Your task to perform on an android device: turn off notifications in google photos Image 0: 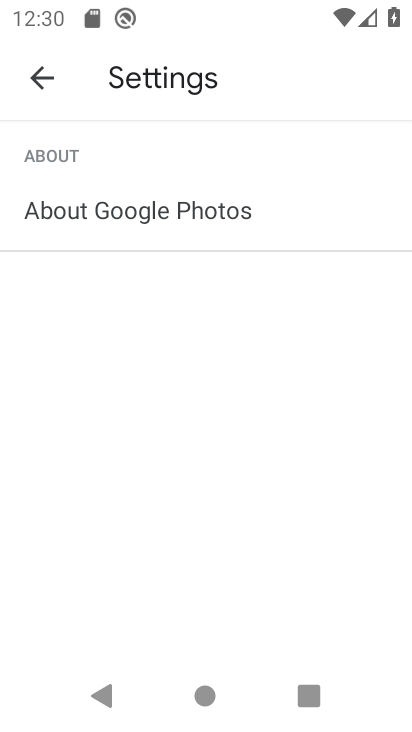
Step 0: press home button
Your task to perform on an android device: turn off notifications in google photos Image 1: 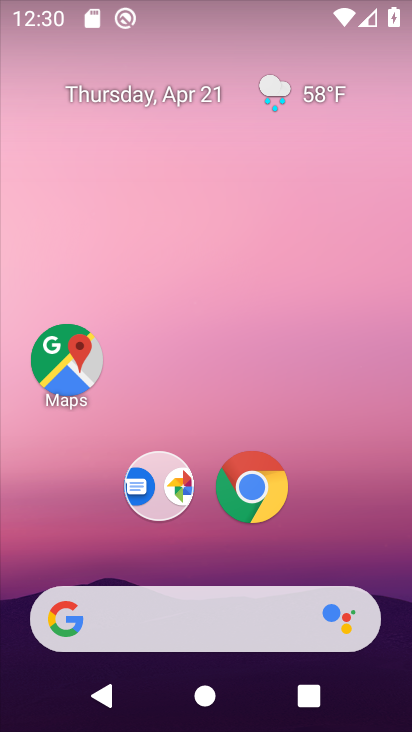
Step 1: drag from (232, 647) to (293, 159)
Your task to perform on an android device: turn off notifications in google photos Image 2: 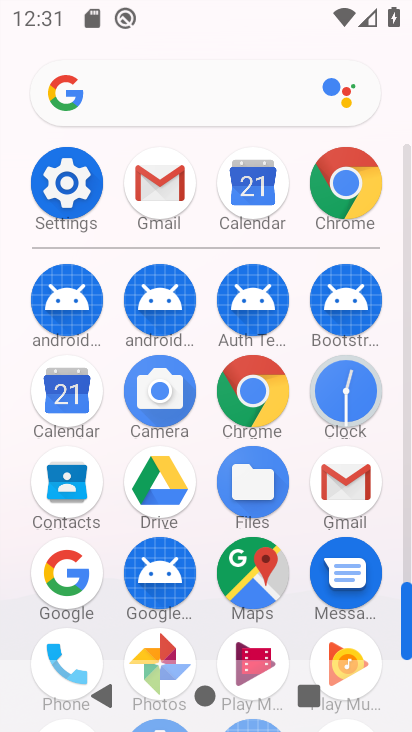
Step 2: drag from (197, 605) to (302, 313)
Your task to perform on an android device: turn off notifications in google photos Image 3: 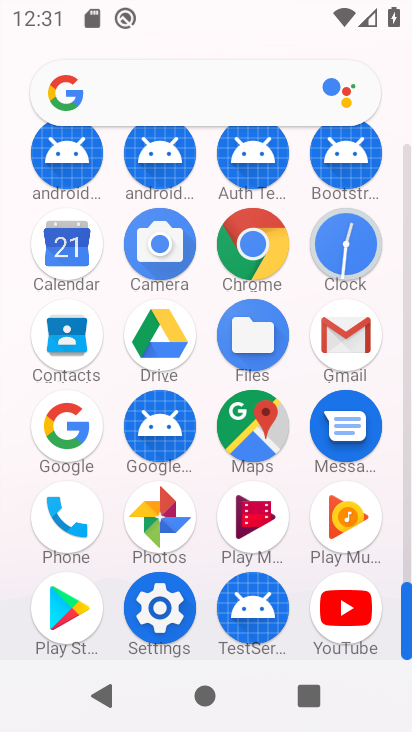
Step 3: drag from (202, 472) to (241, 251)
Your task to perform on an android device: turn off notifications in google photos Image 4: 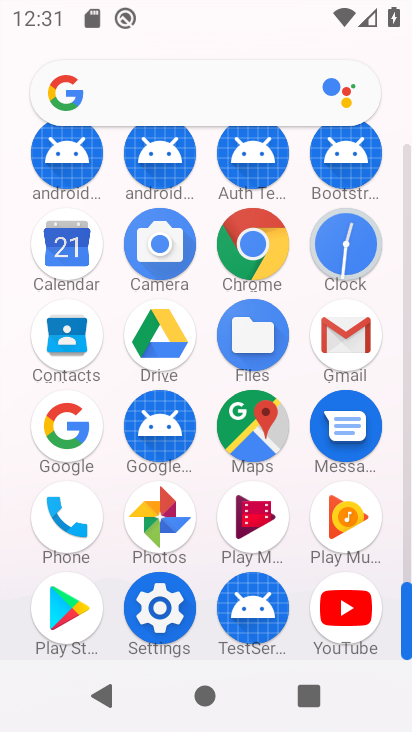
Step 4: click (167, 499)
Your task to perform on an android device: turn off notifications in google photos Image 5: 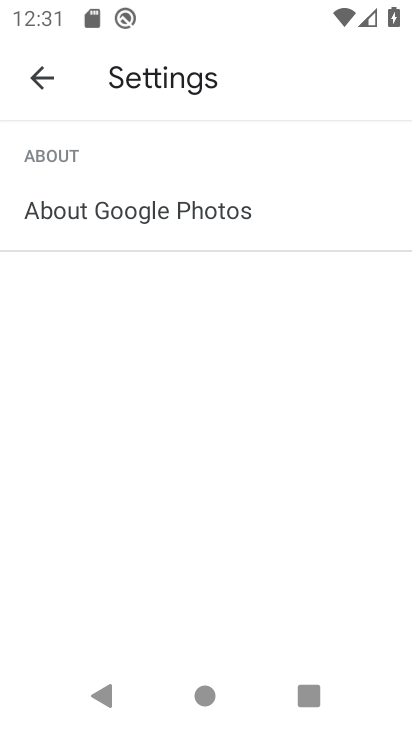
Step 5: click (45, 72)
Your task to perform on an android device: turn off notifications in google photos Image 6: 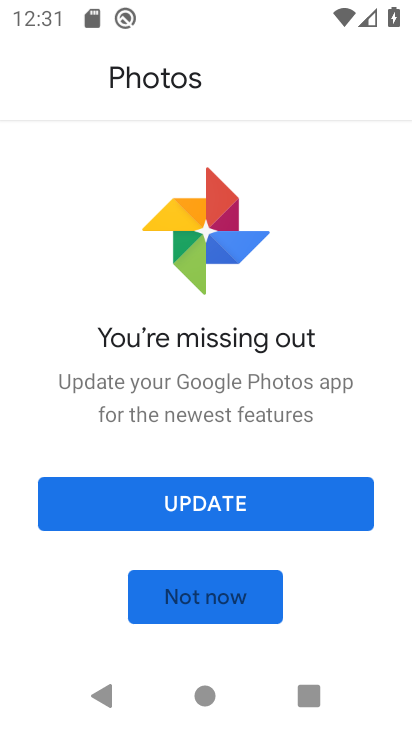
Step 6: click (249, 519)
Your task to perform on an android device: turn off notifications in google photos Image 7: 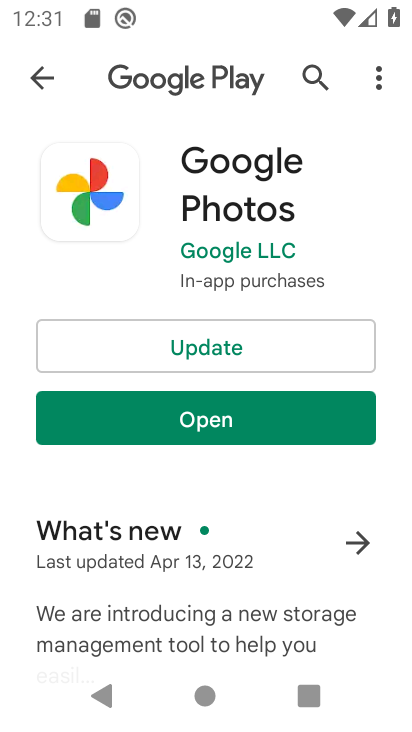
Step 7: click (251, 435)
Your task to perform on an android device: turn off notifications in google photos Image 8: 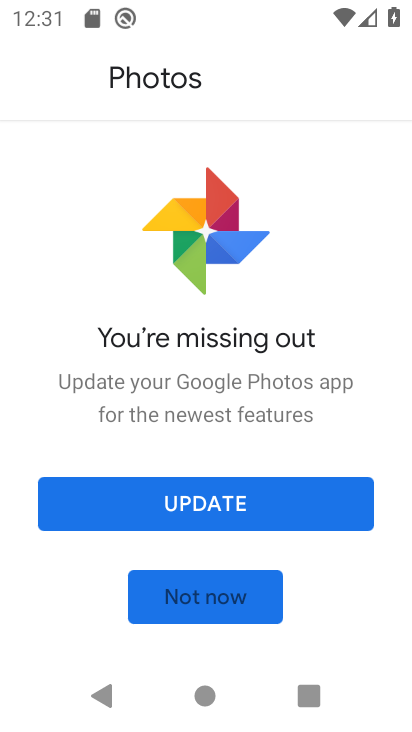
Step 8: click (199, 499)
Your task to perform on an android device: turn off notifications in google photos Image 9: 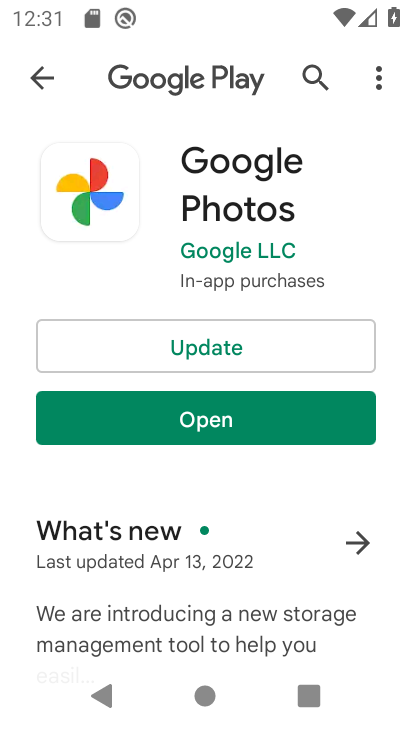
Step 9: click (219, 336)
Your task to perform on an android device: turn off notifications in google photos Image 10: 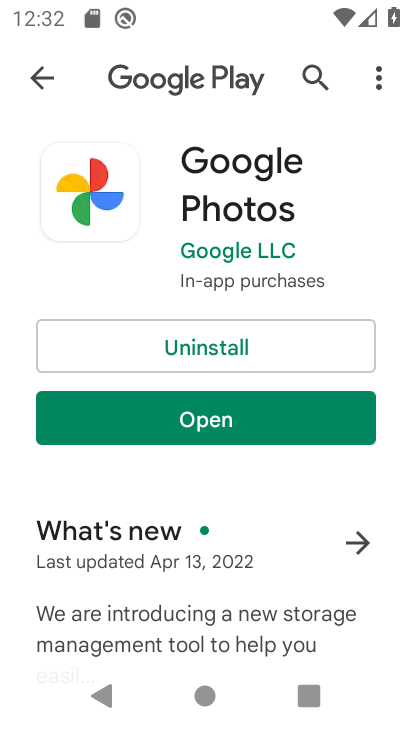
Step 10: click (193, 421)
Your task to perform on an android device: turn off notifications in google photos Image 11: 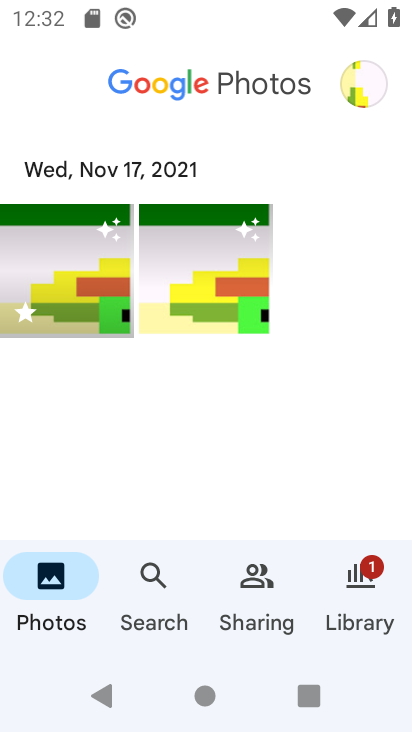
Step 11: click (360, 81)
Your task to perform on an android device: turn off notifications in google photos Image 12: 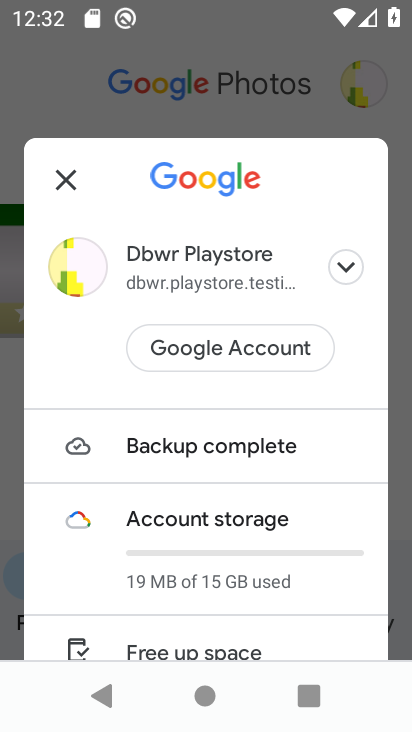
Step 12: drag from (157, 608) to (197, 394)
Your task to perform on an android device: turn off notifications in google photos Image 13: 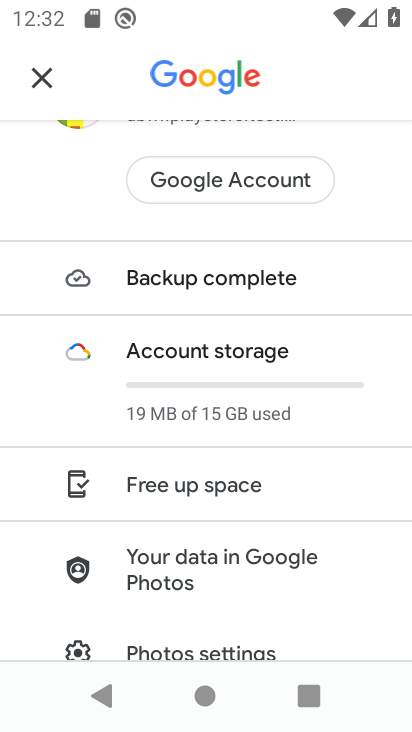
Step 13: click (172, 640)
Your task to perform on an android device: turn off notifications in google photos Image 14: 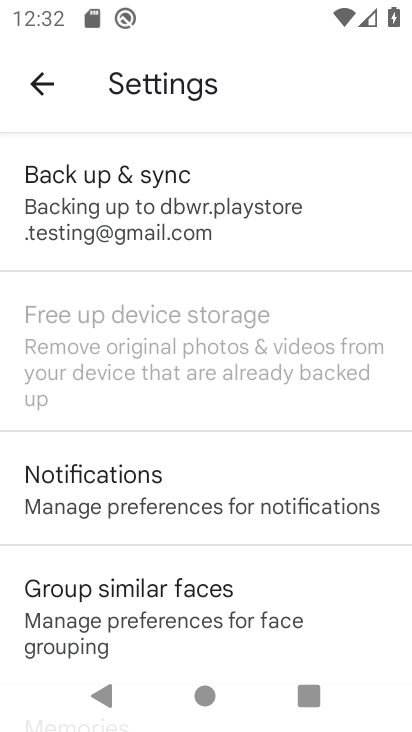
Step 14: click (217, 522)
Your task to perform on an android device: turn off notifications in google photos Image 15: 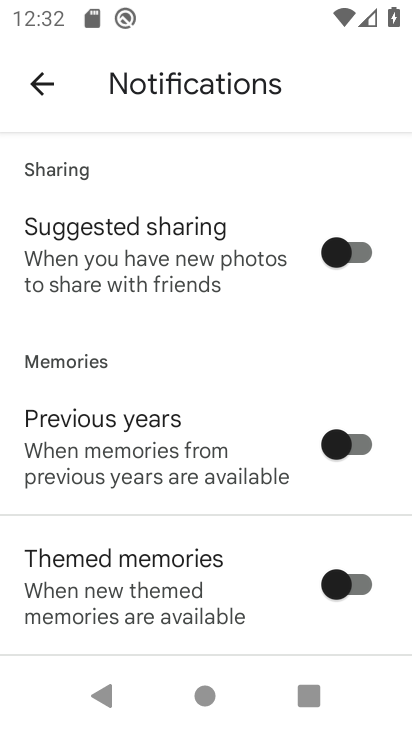
Step 15: drag from (138, 555) to (151, 410)
Your task to perform on an android device: turn off notifications in google photos Image 16: 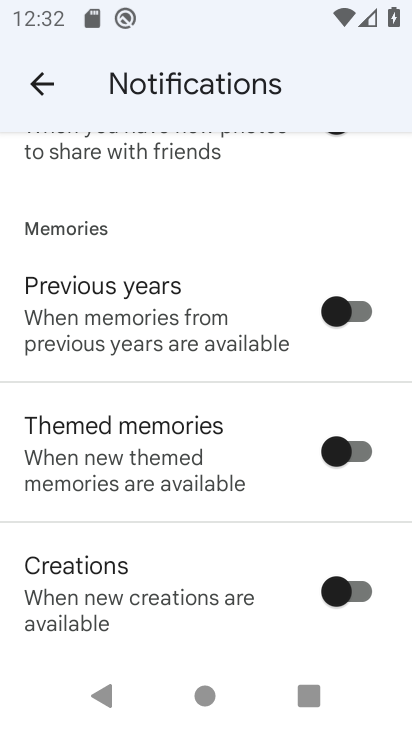
Step 16: drag from (145, 522) to (172, 280)
Your task to perform on an android device: turn off notifications in google photos Image 17: 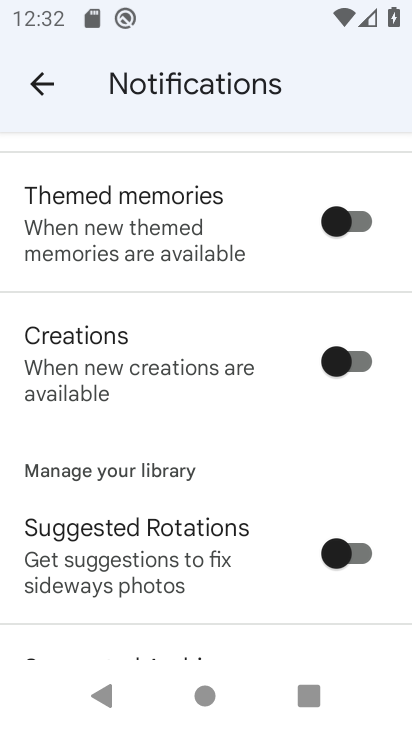
Step 17: drag from (153, 508) to (171, 238)
Your task to perform on an android device: turn off notifications in google photos Image 18: 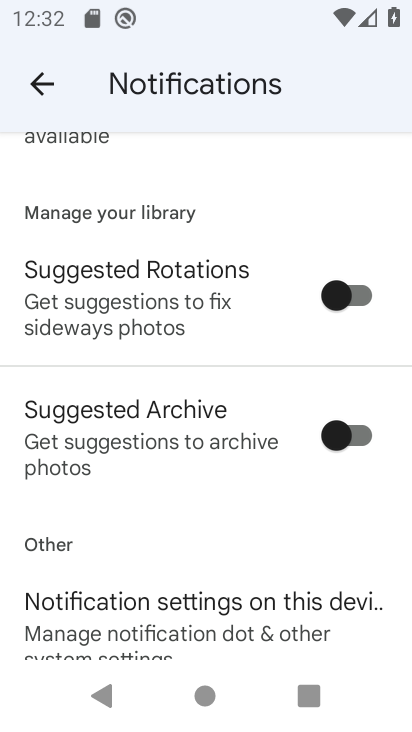
Step 18: click (118, 621)
Your task to perform on an android device: turn off notifications in google photos Image 19: 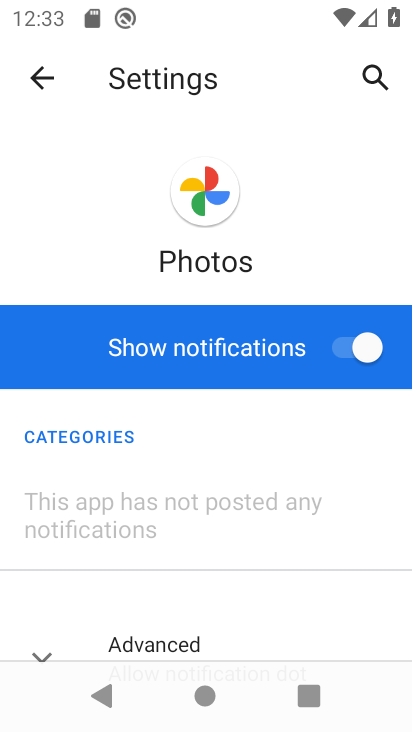
Step 19: click (338, 349)
Your task to perform on an android device: turn off notifications in google photos Image 20: 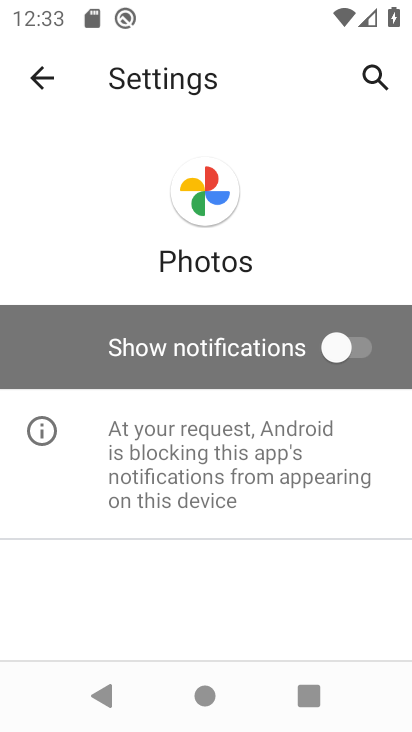
Step 20: task complete